Your task to perform on an android device: Search for Mexican restaurants on Maps Image 0: 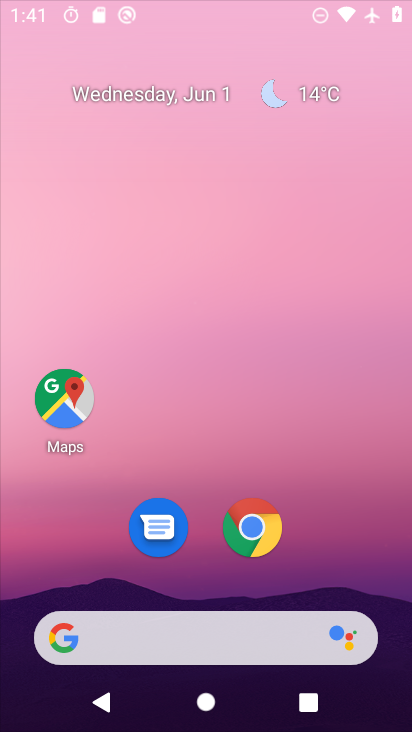
Step 0: drag from (276, 483) to (298, 162)
Your task to perform on an android device: Search for Mexican restaurants on Maps Image 1: 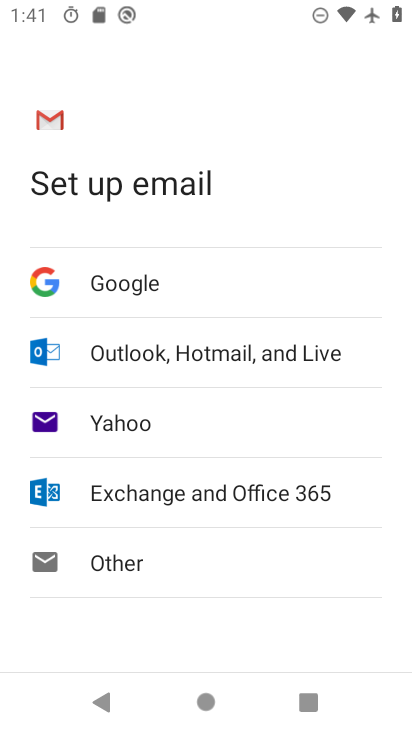
Step 1: press home button
Your task to perform on an android device: Search for Mexican restaurants on Maps Image 2: 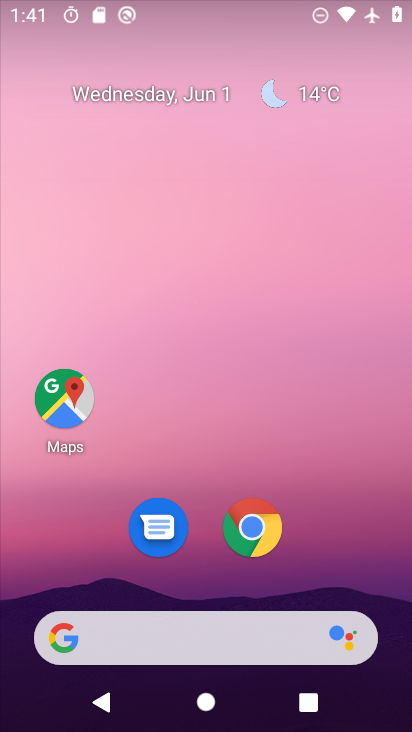
Step 2: drag from (177, 662) to (253, 187)
Your task to perform on an android device: Search for Mexican restaurants on Maps Image 3: 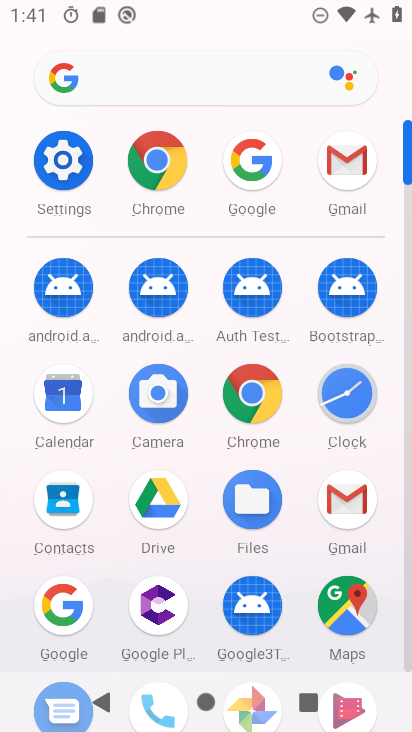
Step 3: drag from (253, 516) to (294, 207)
Your task to perform on an android device: Search for Mexican restaurants on Maps Image 4: 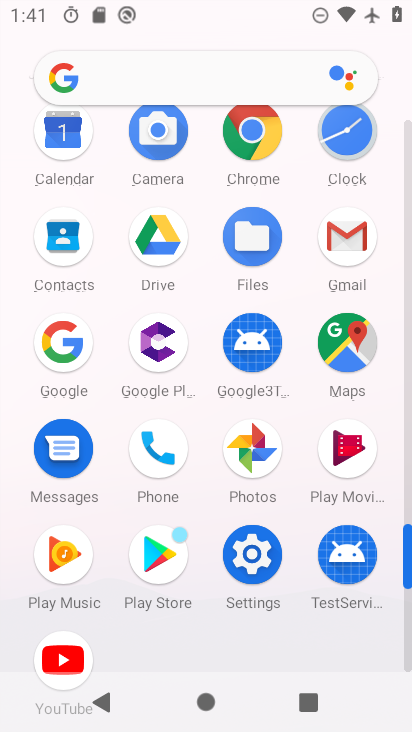
Step 4: click (343, 359)
Your task to perform on an android device: Search for Mexican restaurants on Maps Image 5: 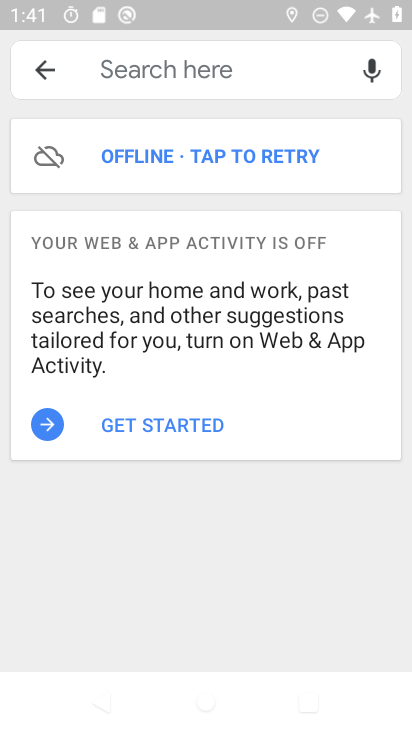
Step 5: click (259, 79)
Your task to perform on an android device: Search for Mexican restaurants on Maps Image 6: 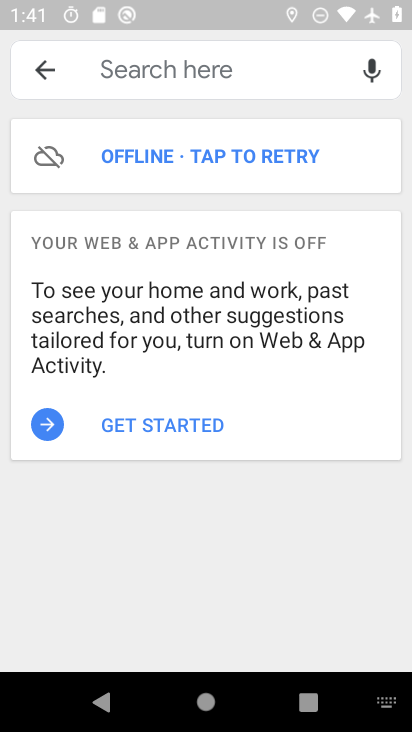
Step 6: type "maxi"
Your task to perform on an android device: Search for Mexican restaurants on Maps Image 7: 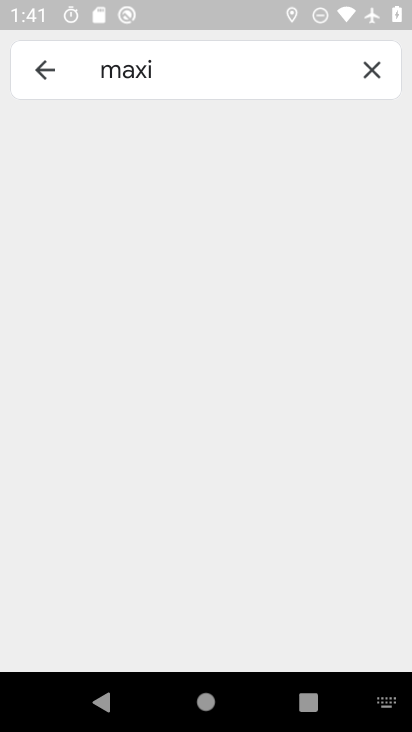
Step 7: task complete